Your task to perform on an android device: delete browsing data in the chrome app Image 0: 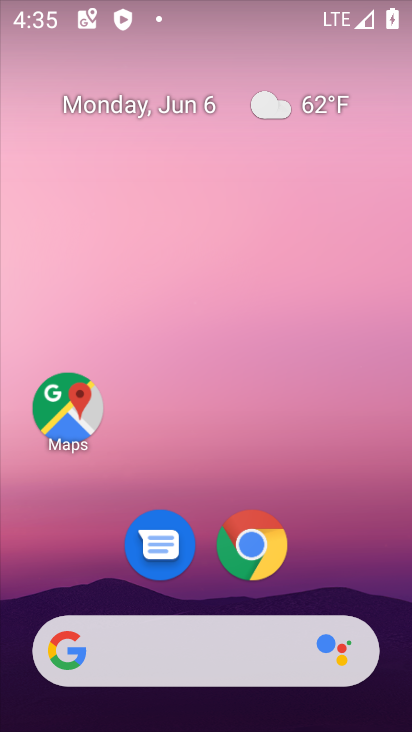
Step 0: click (252, 554)
Your task to perform on an android device: delete browsing data in the chrome app Image 1: 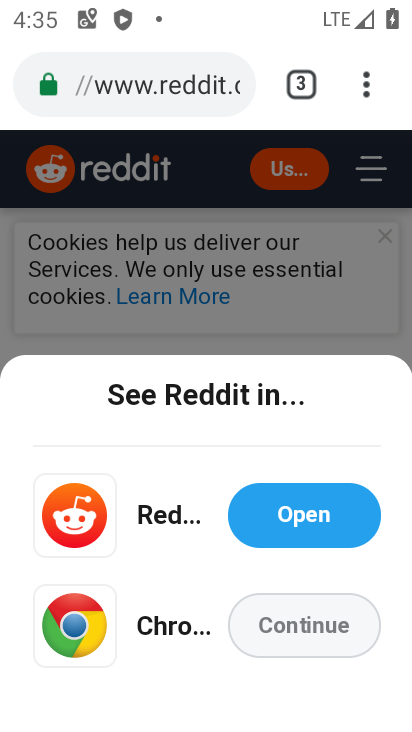
Step 1: click (368, 92)
Your task to perform on an android device: delete browsing data in the chrome app Image 2: 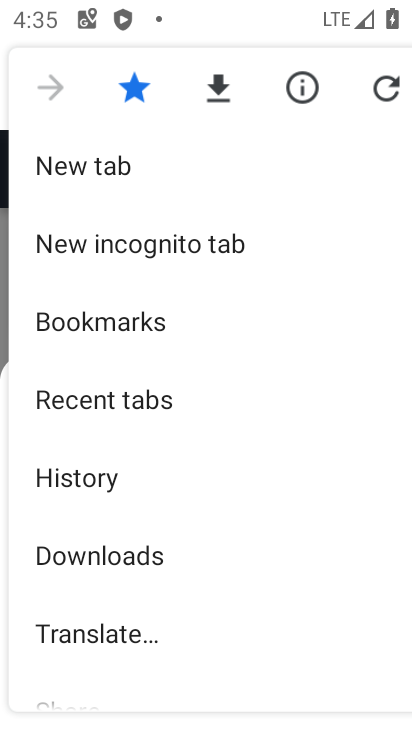
Step 2: click (92, 471)
Your task to perform on an android device: delete browsing data in the chrome app Image 3: 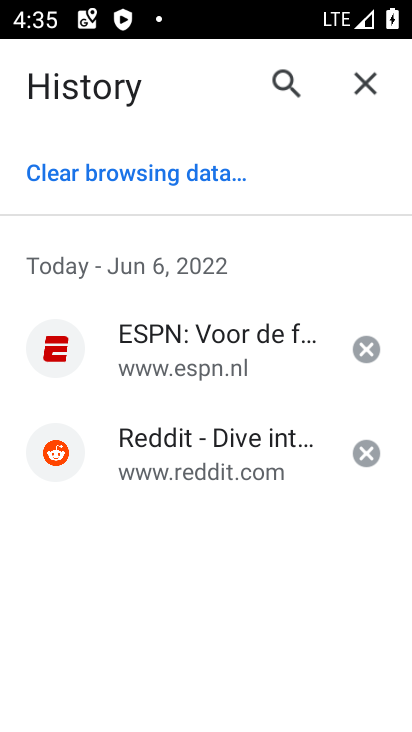
Step 3: click (172, 172)
Your task to perform on an android device: delete browsing data in the chrome app Image 4: 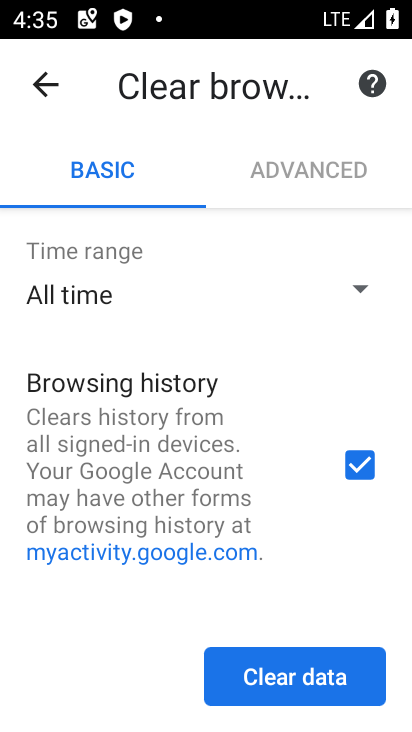
Step 4: drag from (269, 602) to (258, 296)
Your task to perform on an android device: delete browsing data in the chrome app Image 5: 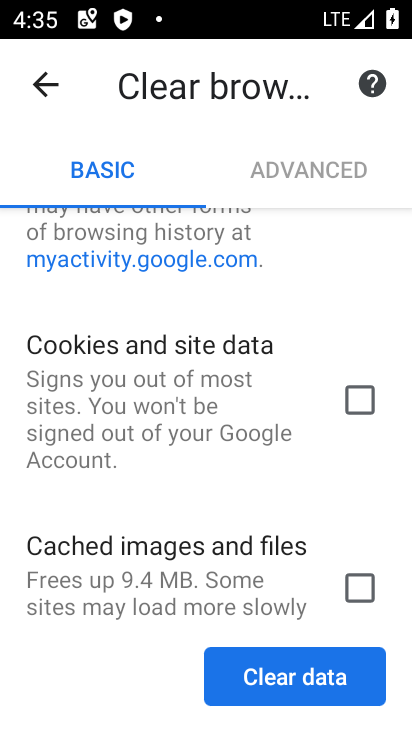
Step 5: drag from (301, 282) to (305, 513)
Your task to perform on an android device: delete browsing data in the chrome app Image 6: 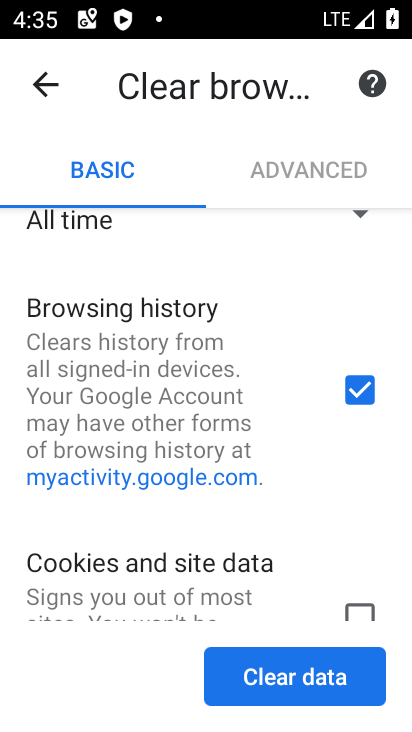
Step 6: click (267, 683)
Your task to perform on an android device: delete browsing data in the chrome app Image 7: 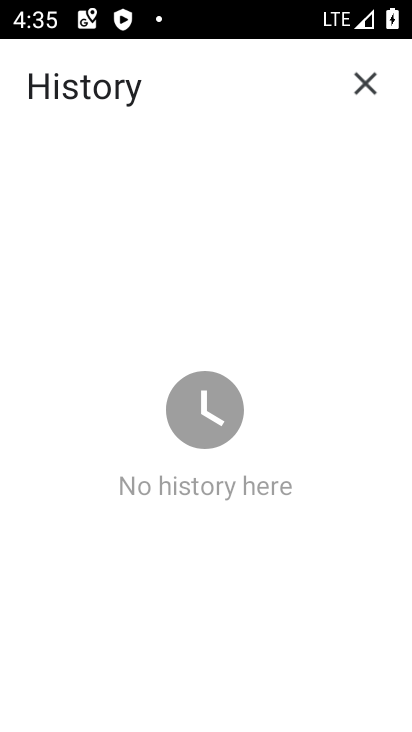
Step 7: task complete